Your task to perform on an android device: delete browsing data in the chrome app Image 0: 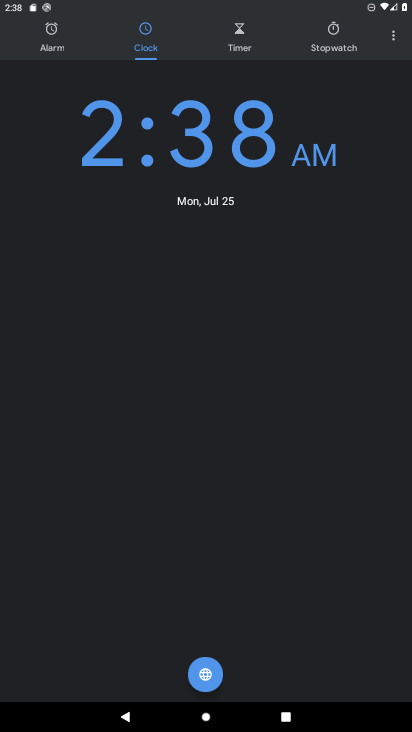
Step 0: press home button
Your task to perform on an android device: delete browsing data in the chrome app Image 1: 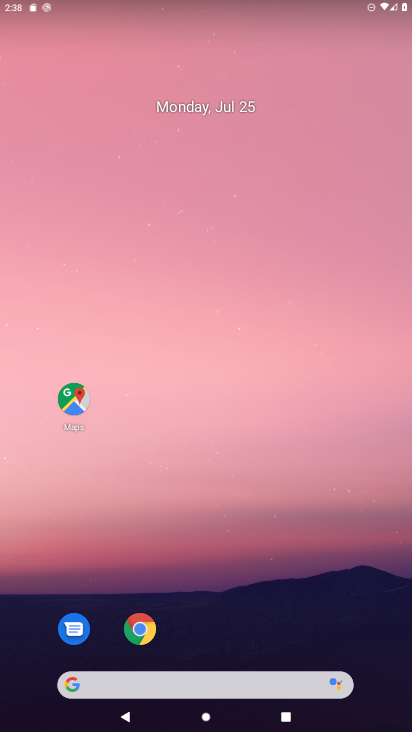
Step 1: drag from (274, 589) to (326, 56)
Your task to perform on an android device: delete browsing data in the chrome app Image 2: 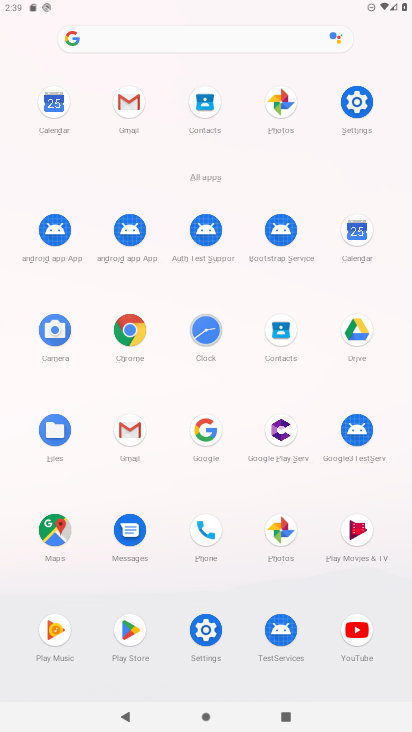
Step 2: click (134, 331)
Your task to perform on an android device: delete browsing data in the chrome app Image 3: 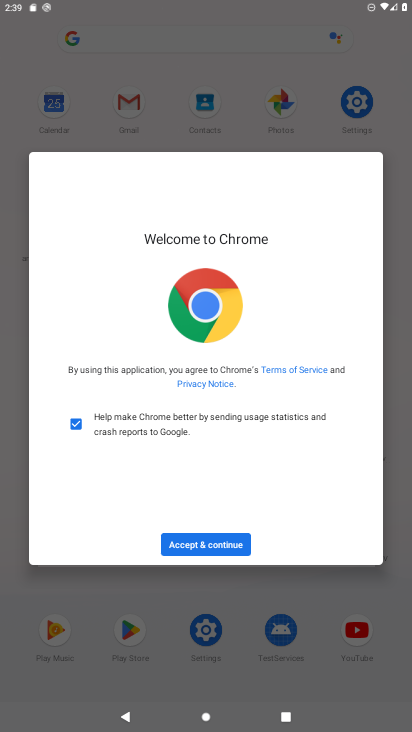
Step 3: click (213, 535)
Your task to perform on an android device: delete browsing data in the chrome app Image 4: 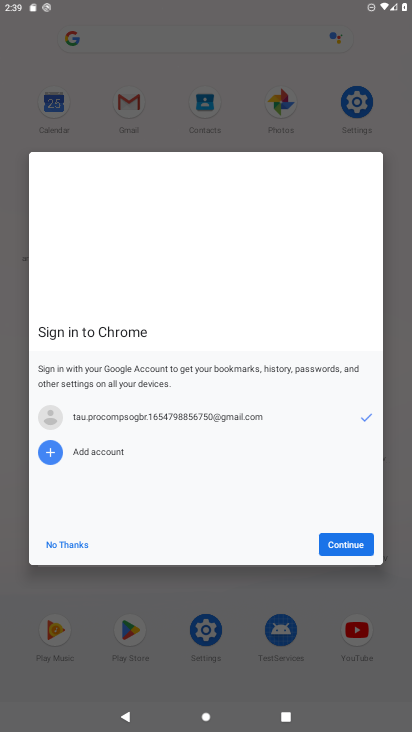
Step 4: click (340, 535)
Your task to perform on an android device: delete browsing data in the chrome app Image 5: 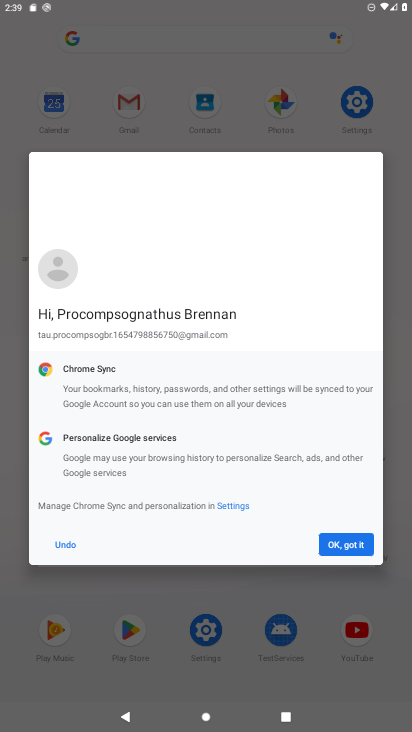
Step 5: click (360, 539)
Your task to perform on an android device: delete browsing data in the chrome app Image 6: 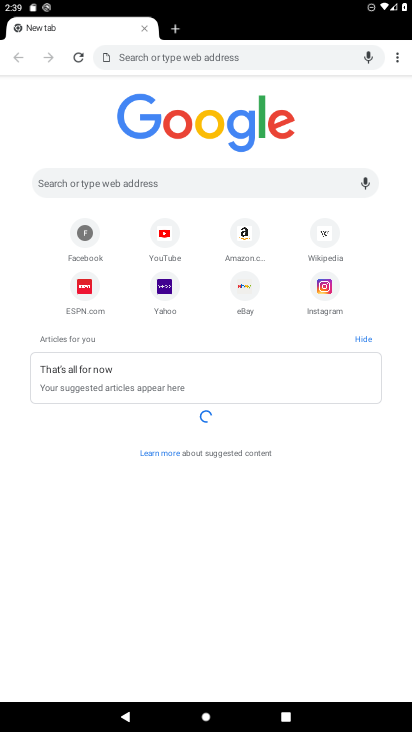
Step 6: drag from (396, 58) to (262, 270)
Your task to perform on an android device: delete browsing data in the chrome app Image 7: 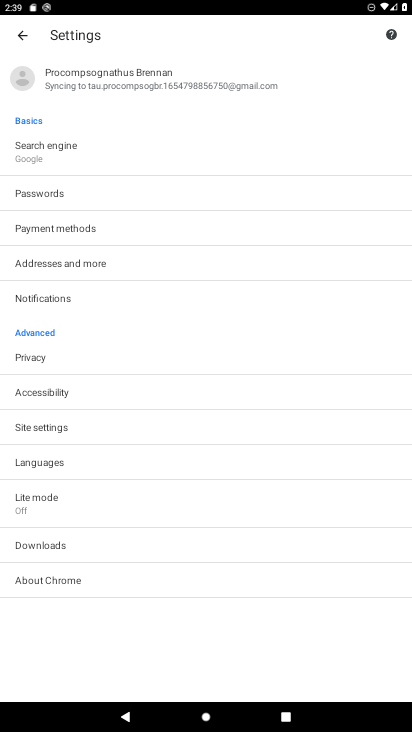
Step 7: click (41, 355)
Your task to perform on an android device: delete browsing data in the chrome app Image 8: 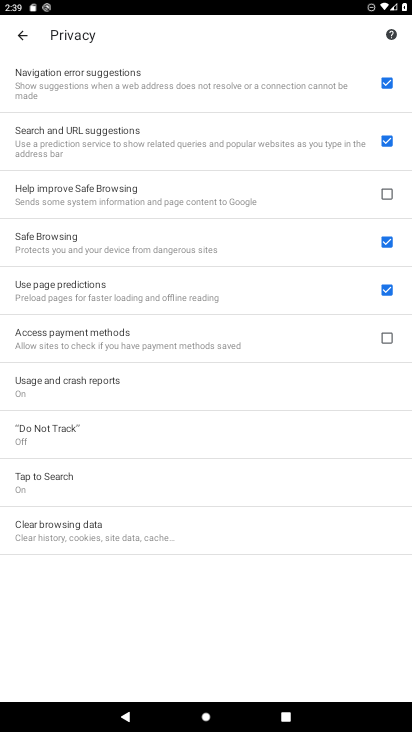
Step 8: click (144, 535)
Your task to perform on an android device: delete browsing data in the chrome app Image 9: 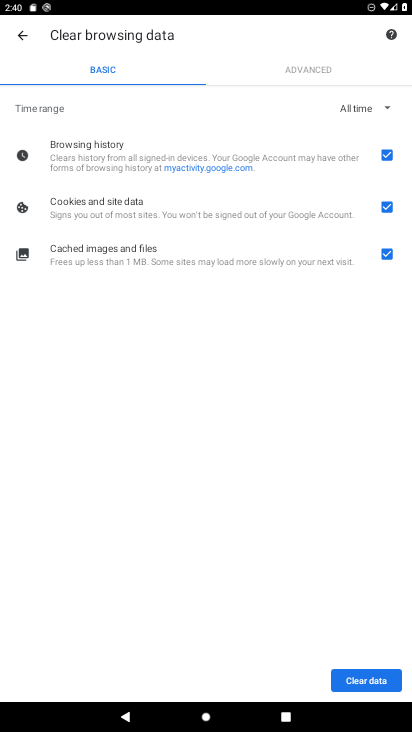
Step 9: click (375, 685)
Your task to perform on an android device: delete browsing data in the chrome app Image 10: 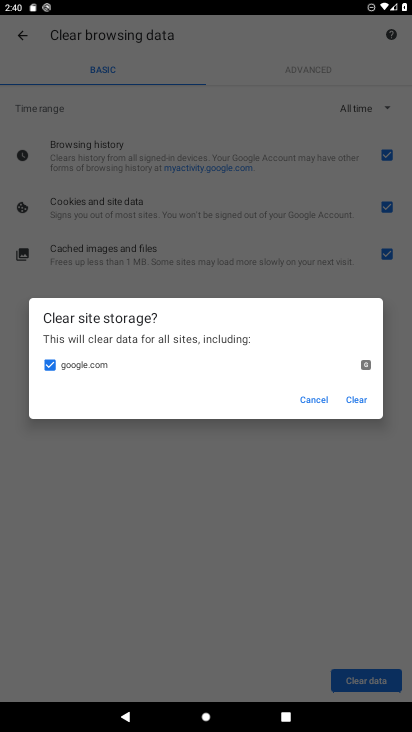
Step 10: click (363, 401)
Your task to perform on an android device: delete browsing data in the chrome app Image 11: 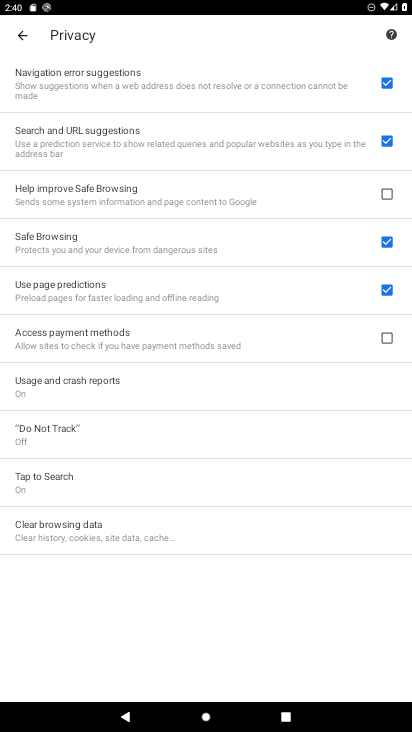
Step 11: task complete